Your task to perform on an android device: Add "logitech g910" to the cart on target.com Image 0: 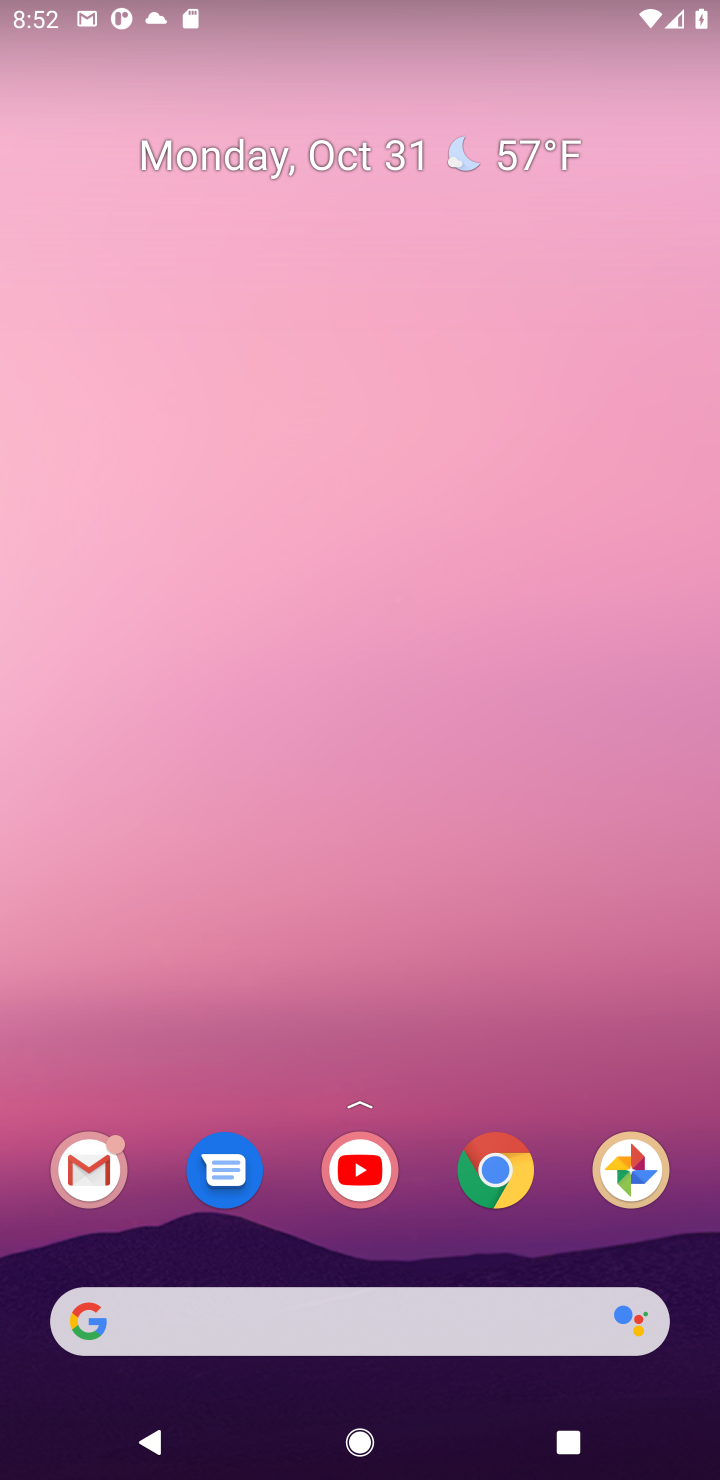
Step 0: click (526, 1159)
Your task to perform on an android device: Add "logitech g910" to the cart on target.com Image 1: 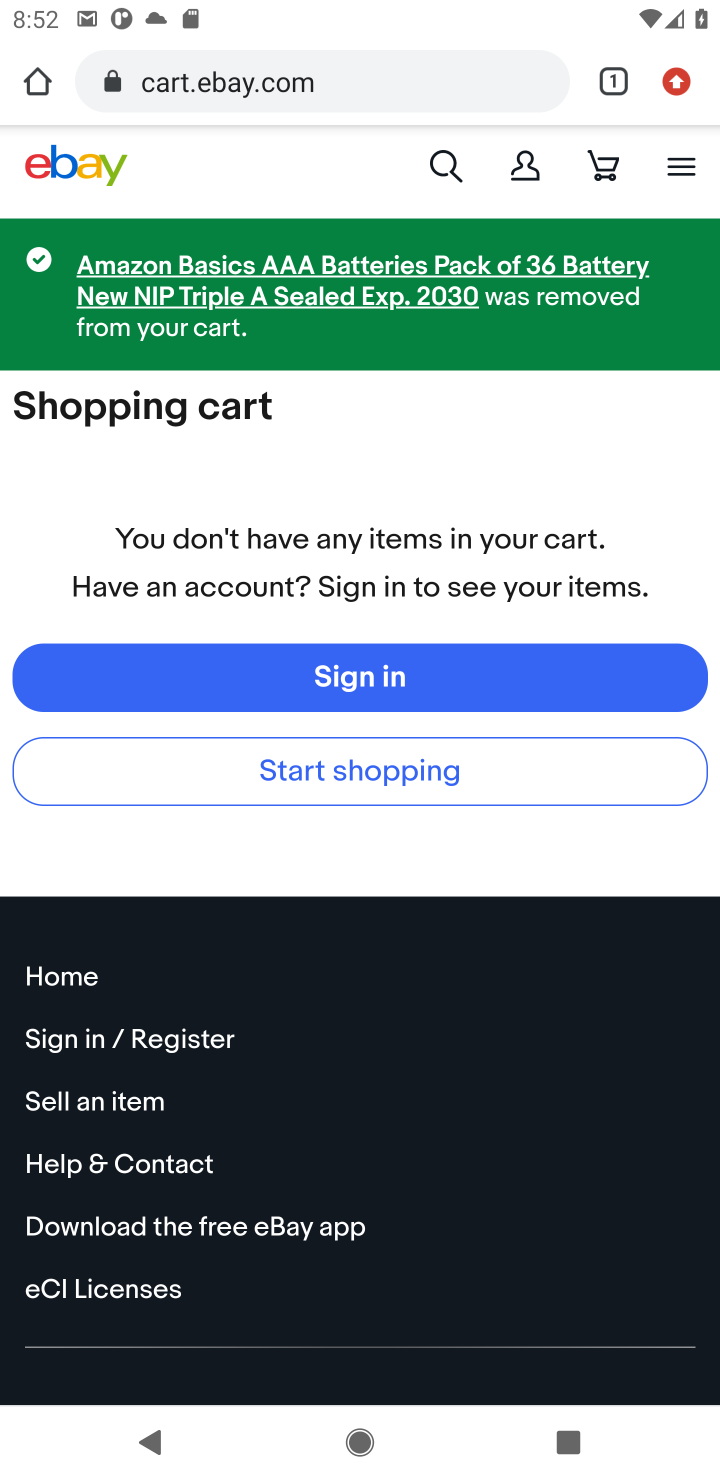
Step 1: click (380, 86)
Your task to perform on an android device: Add "logitech g910" to the cart on target.com Image 2: 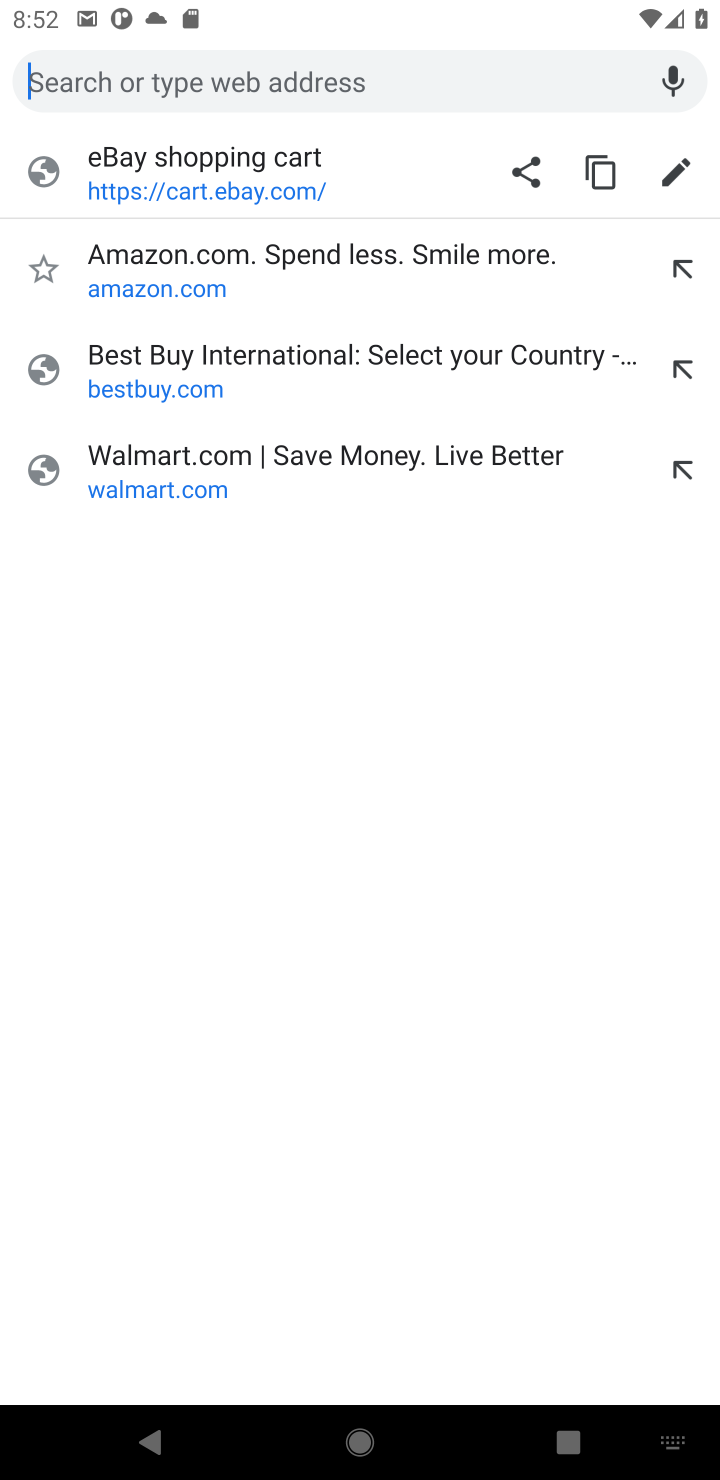
Step 2: type "target"
Your task to perform on an android device: Add "logitech g910" to the cart on target.com Image 3: 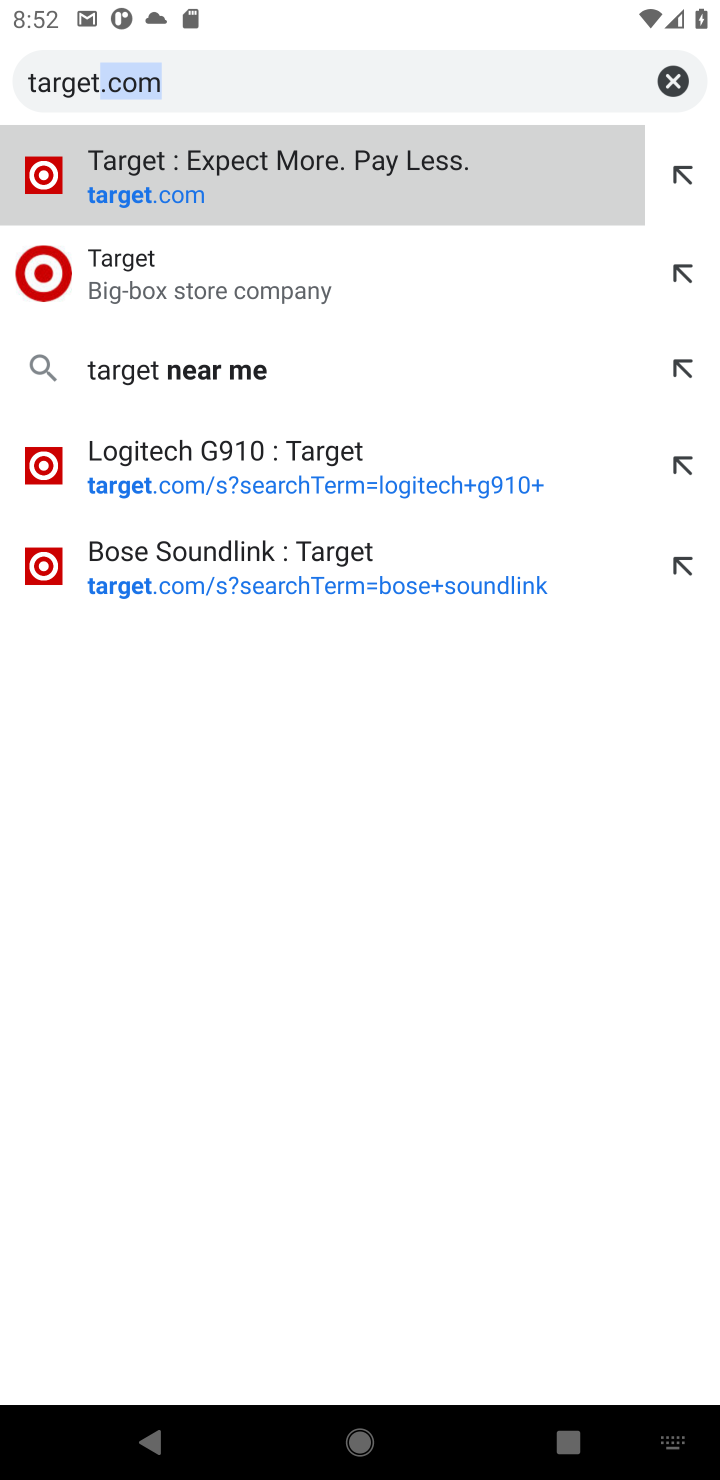
Step 3: click (487, 292)
Your task to perform on an android device: Add "logitech g910" to the cart on target.com Image 4: 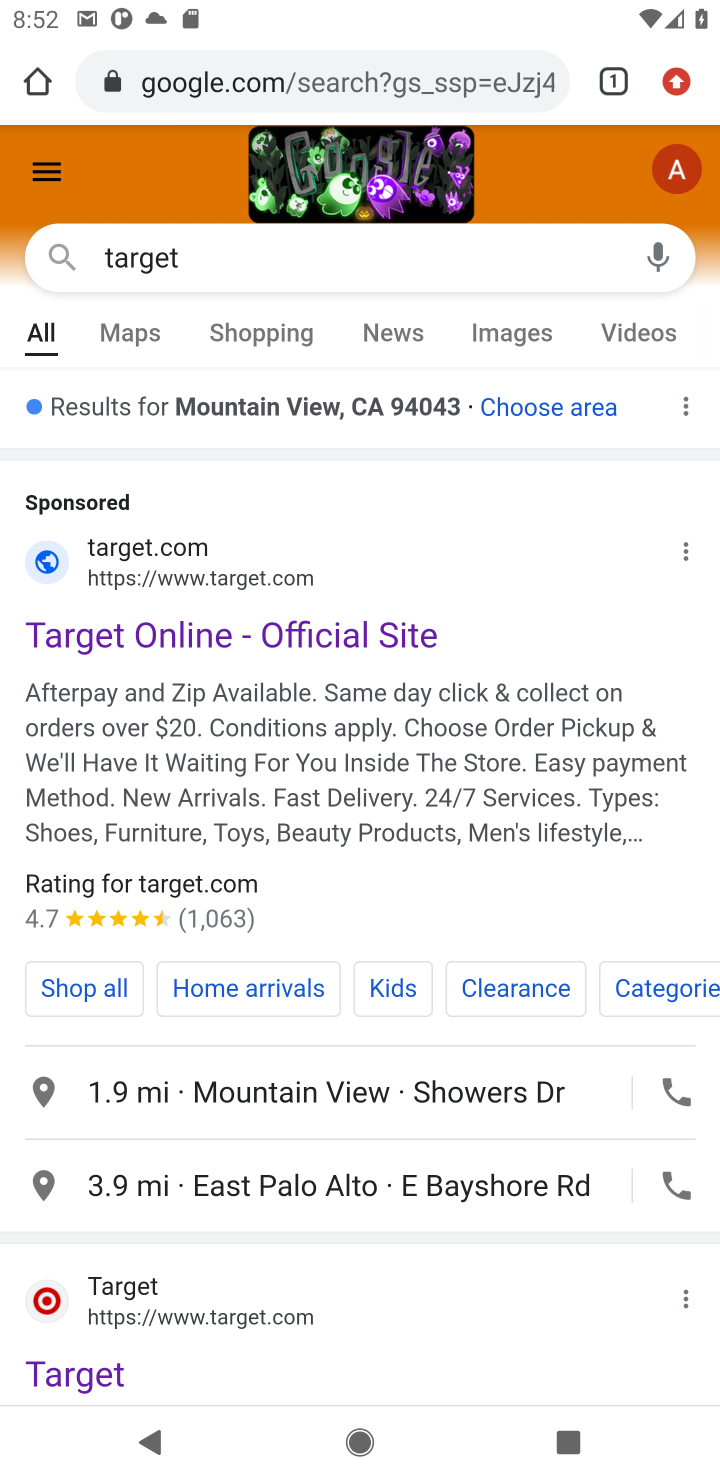
Step 4: click (230, 629)
Your task to perform on an android device: Add "logitech g910" to the cart on target.com Image 5: 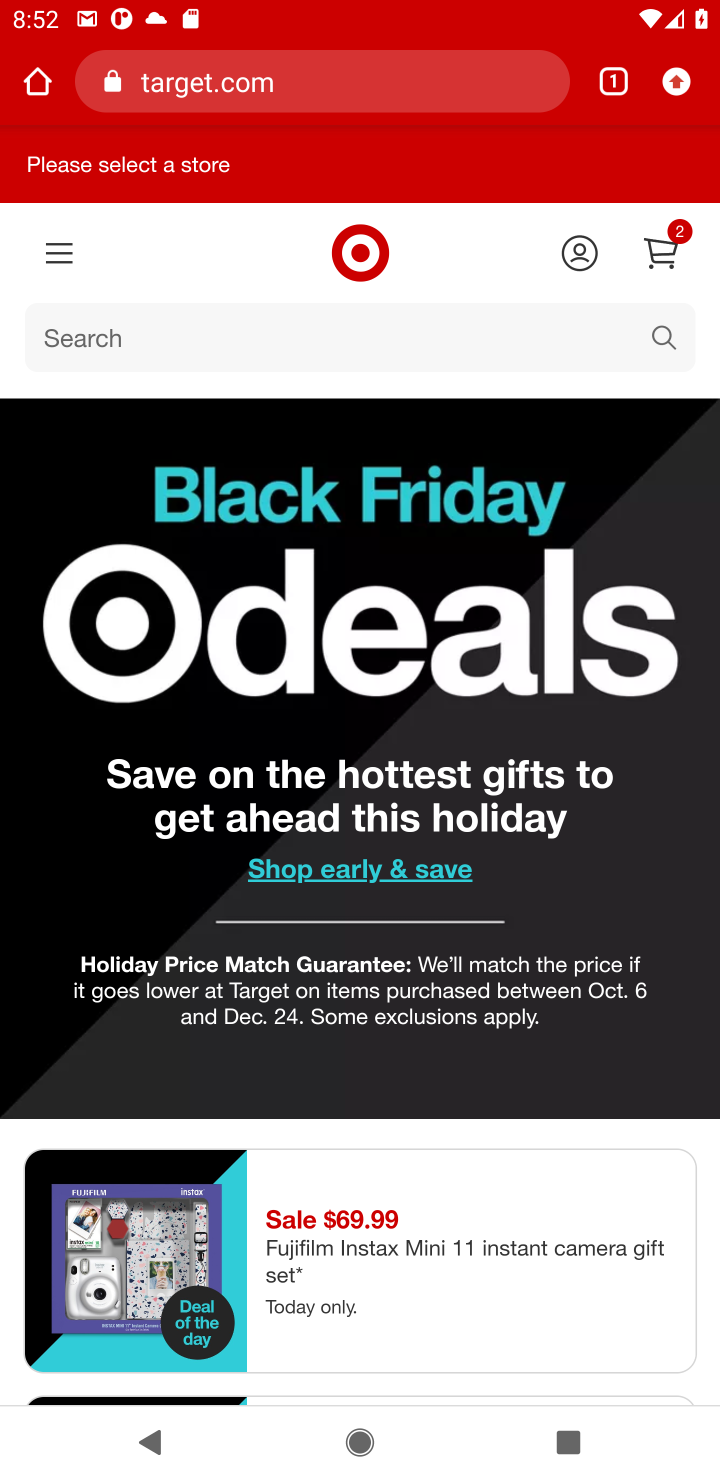
Step 5: click (425, 322)
Your task to perform on an android device: Add "logitech g910" to the cart on target.com Image 6: 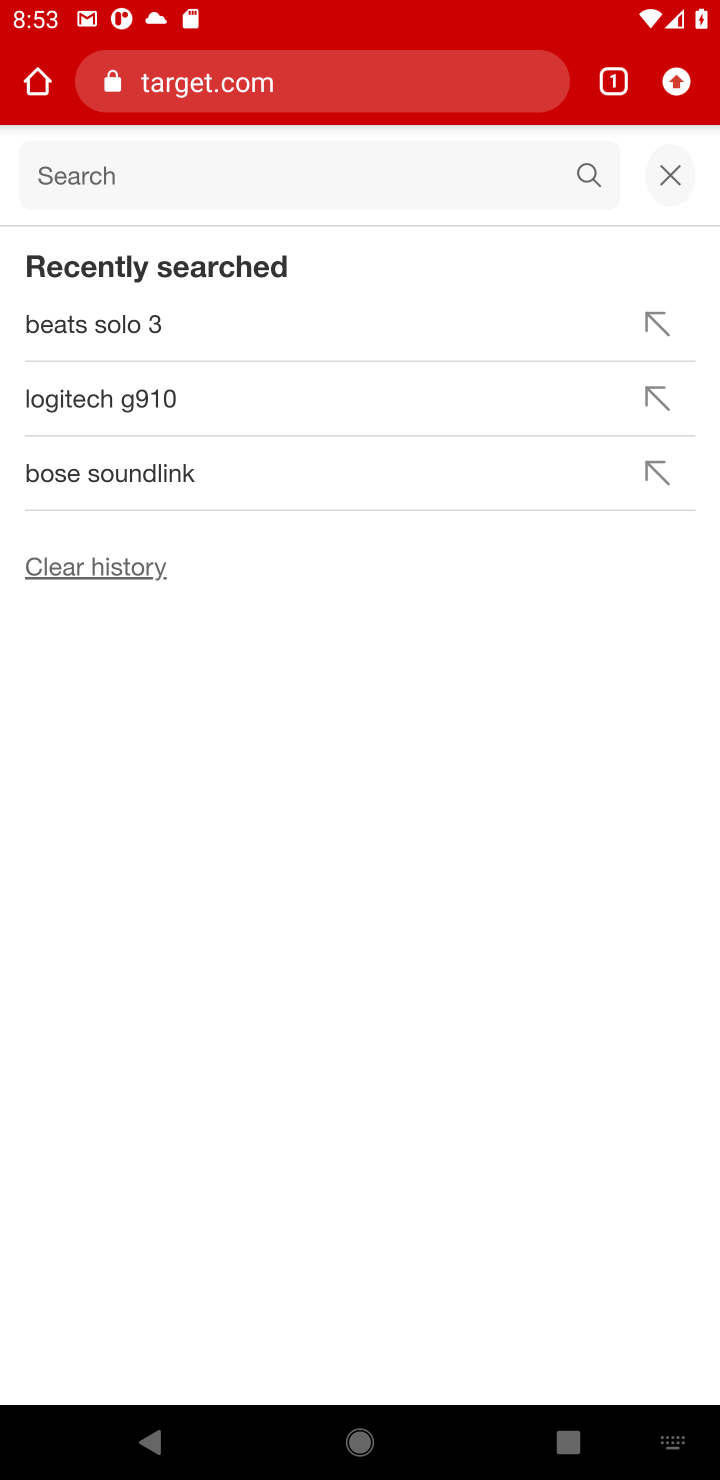
Step 6: type "logitech g910"
Your task to perform on an android device: Add "logitech g910" to the cart on target.com Image 7: 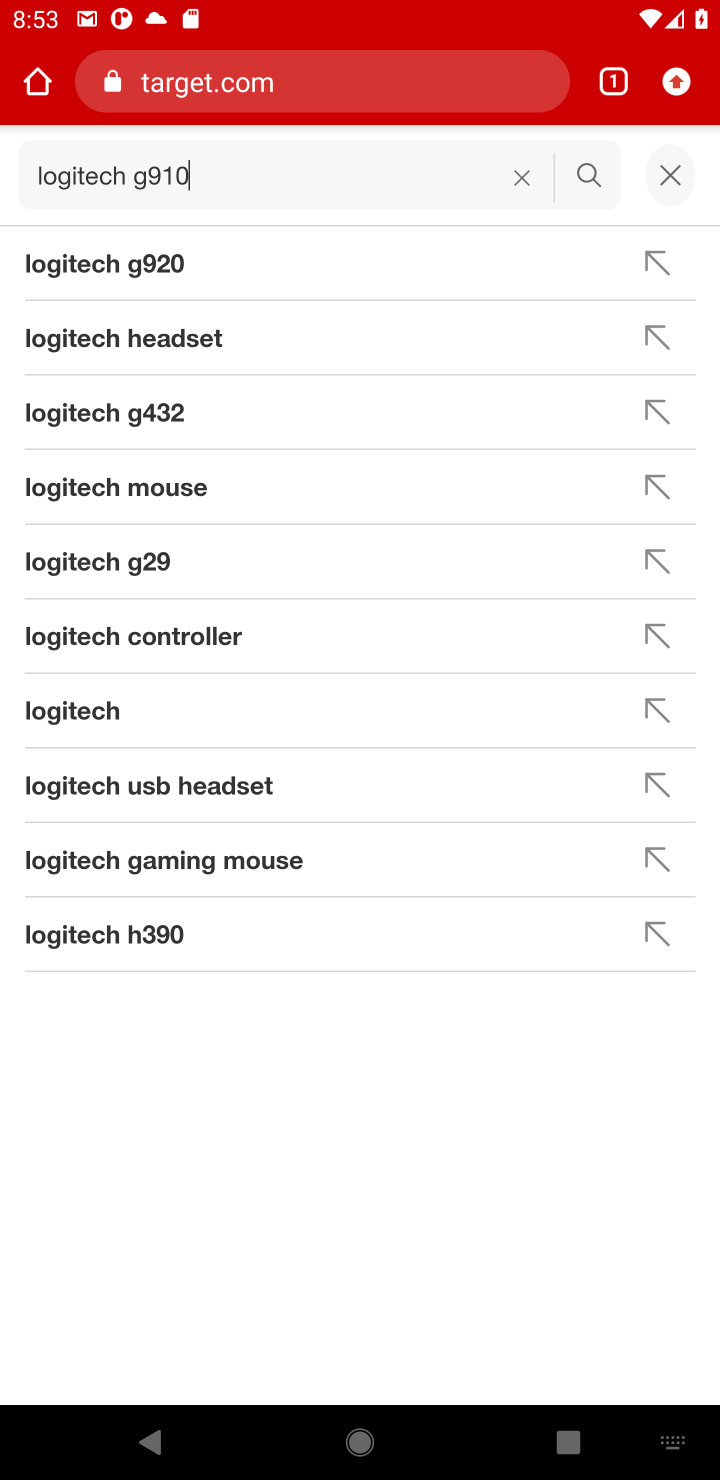
Step 7: click (585, 152)
Your task to perform on an android device: Add "logitech g910" to the cart on target.com Image 8: 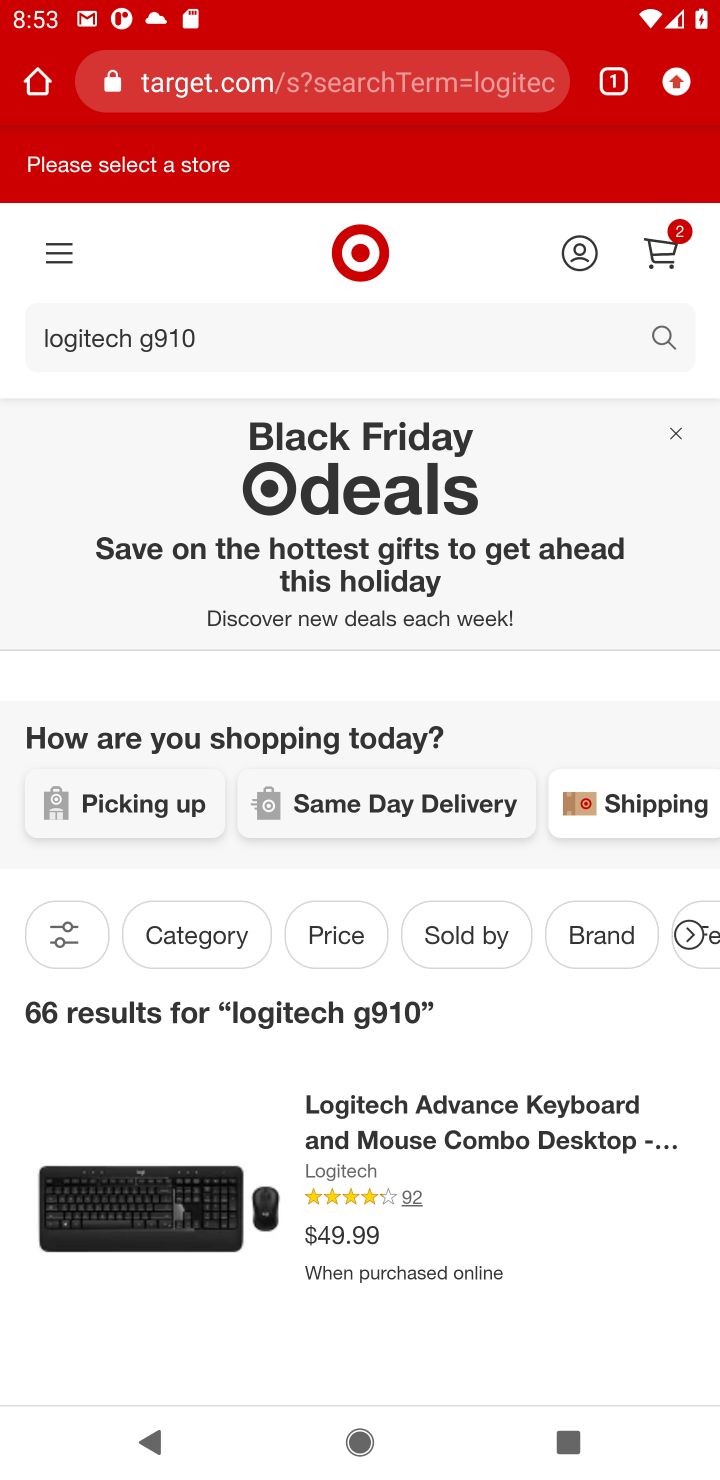
Step 8: click (382, 1125)
Your task to perform on an android device: Add "logitech g910" to the cart on target.com Image 9: 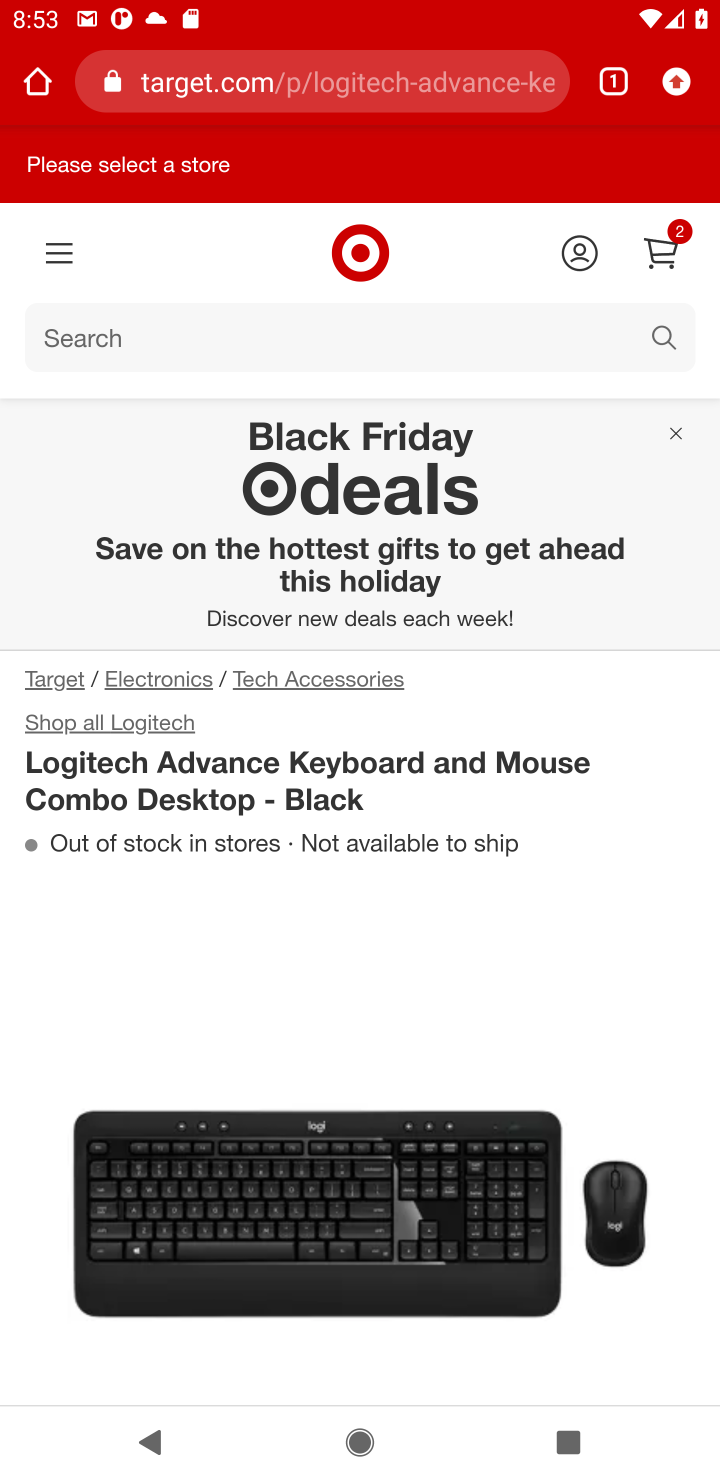
Step 9: drag from (407, 1267) to (428, 218)
Your task to perform on an android device: Add "logitech g910" to the cart on target.com Image 10: 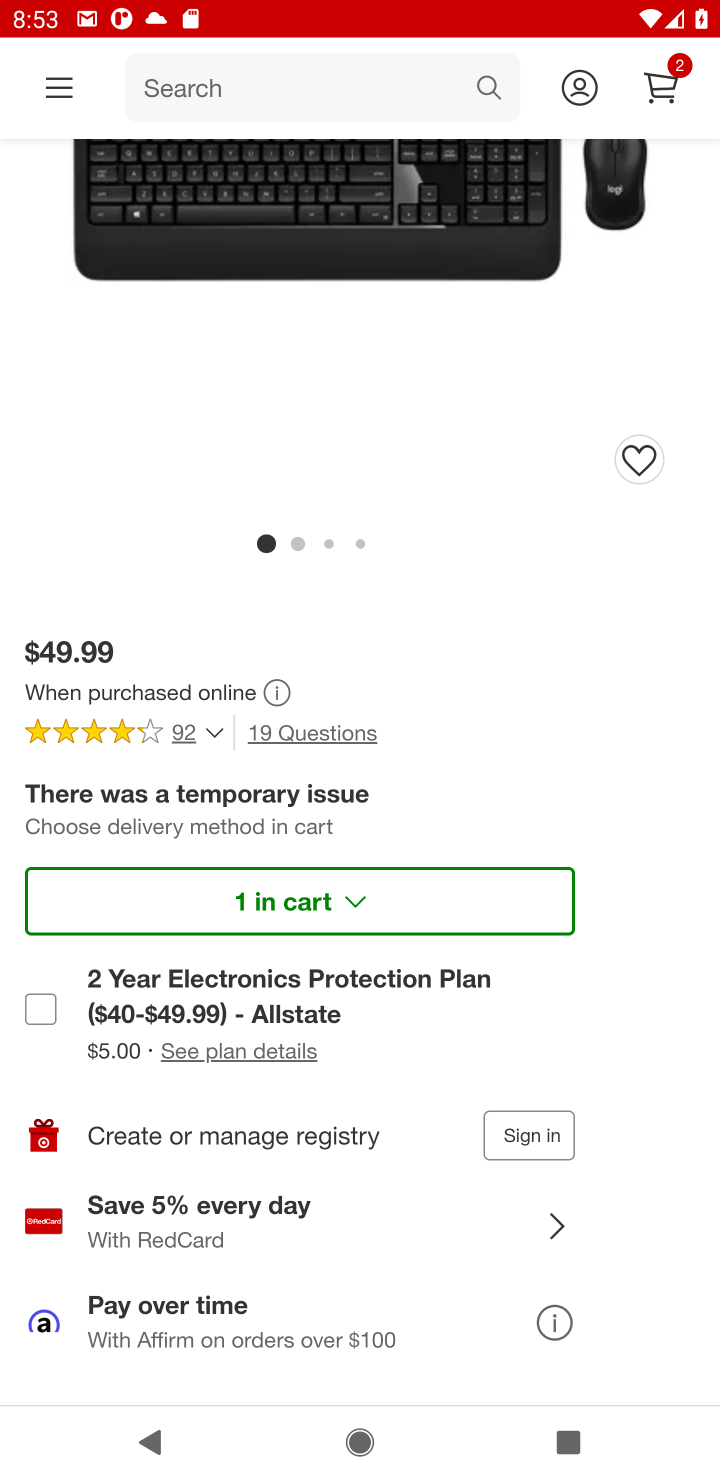
Step 10: drag from (368, 1207) to (287, 373)
Your task to perform on an android device: Add "logitech g910" to the cart on target.com Image 11: 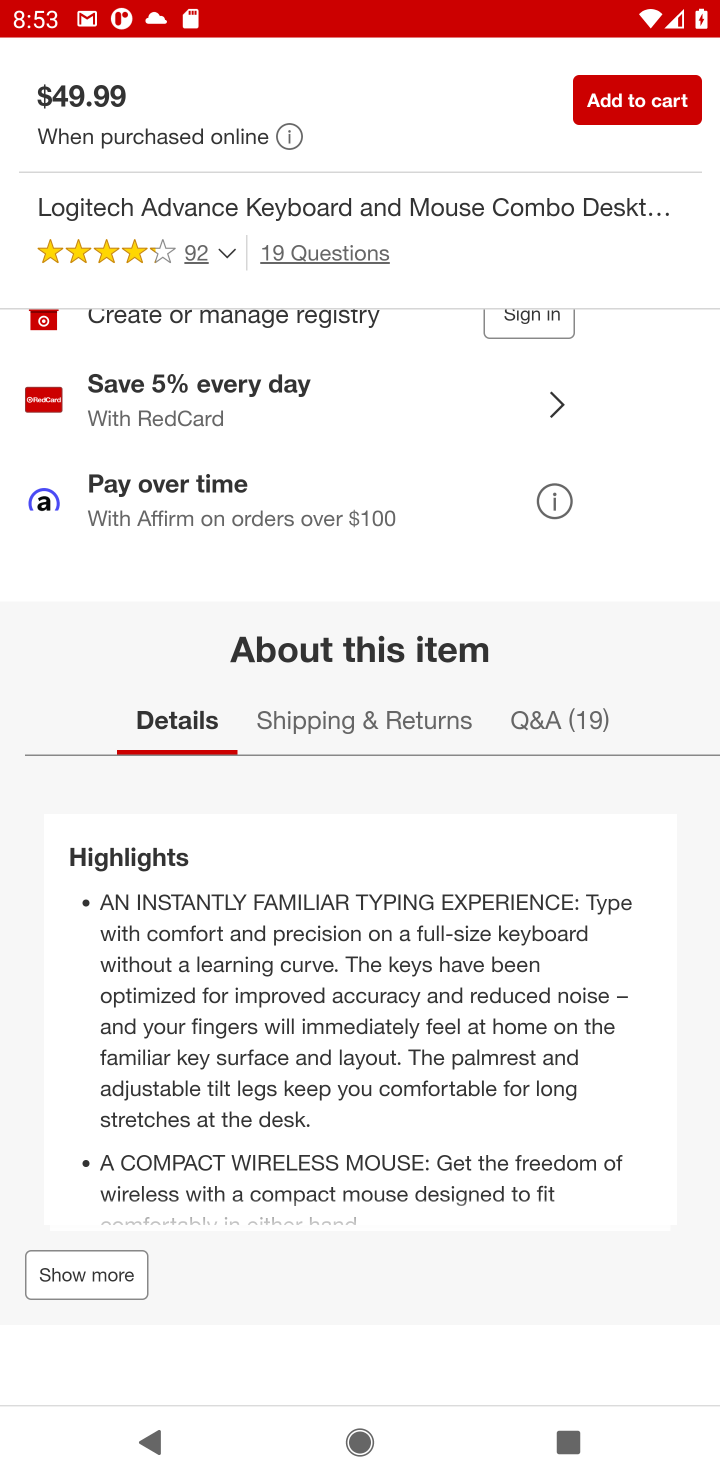
Step 11: click (656, 107)
Your task to perform on an android device: Add "logitech g910" to the cart on target.com Image 12: 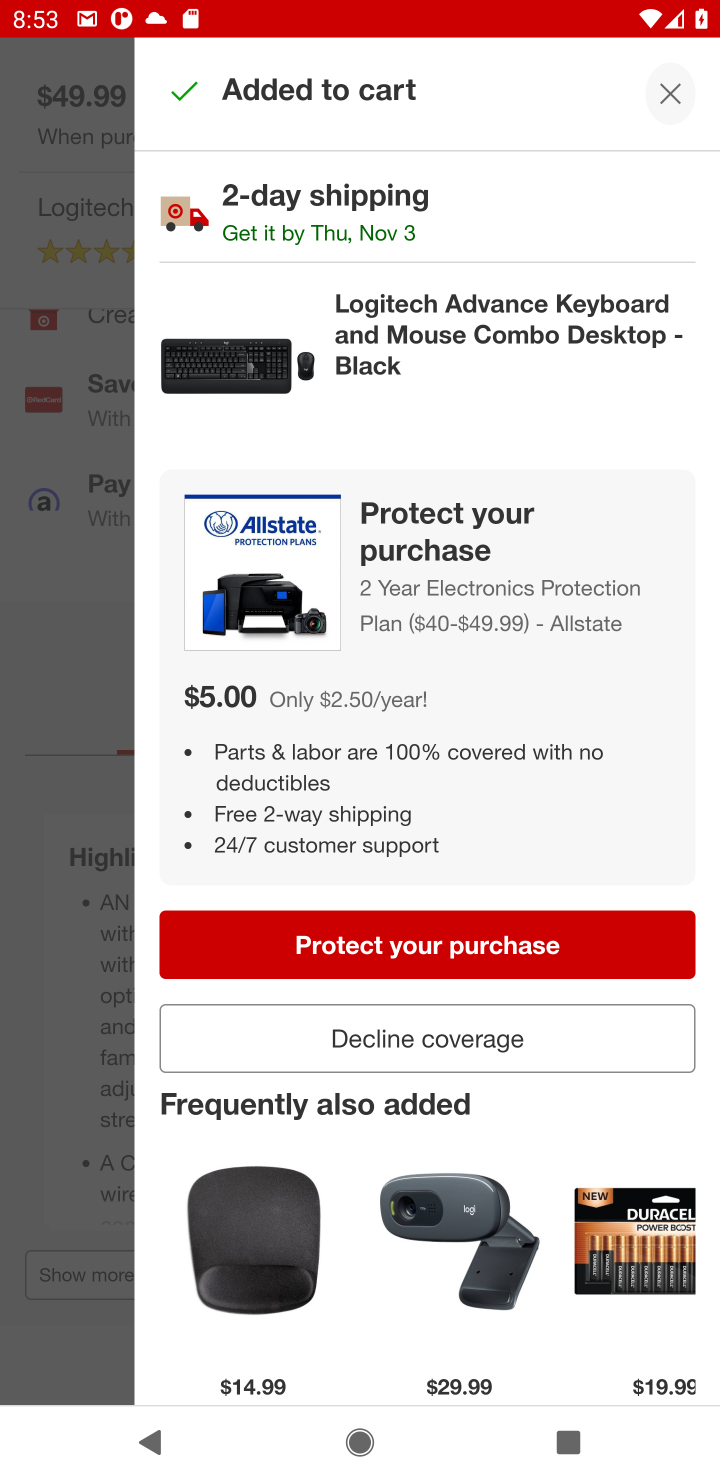
Step 12: task complete